Your task to perform on an android device: check out phone information Image 0: 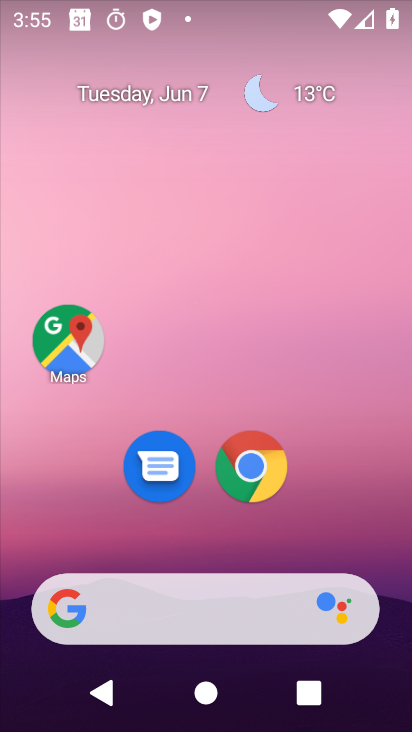
Step 0: drag from (399, 565) to (309, 125)
Your task to perform on an android device: check out phone information Image 1: 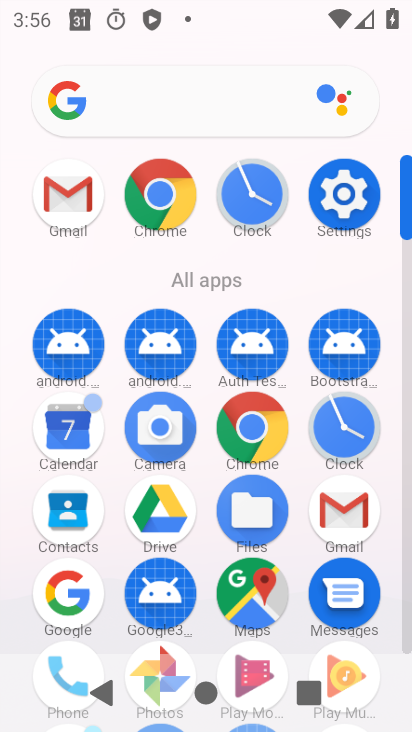
Step 1: click (362, 205)
Your task to perform on an android device: check out phone information Image 2: 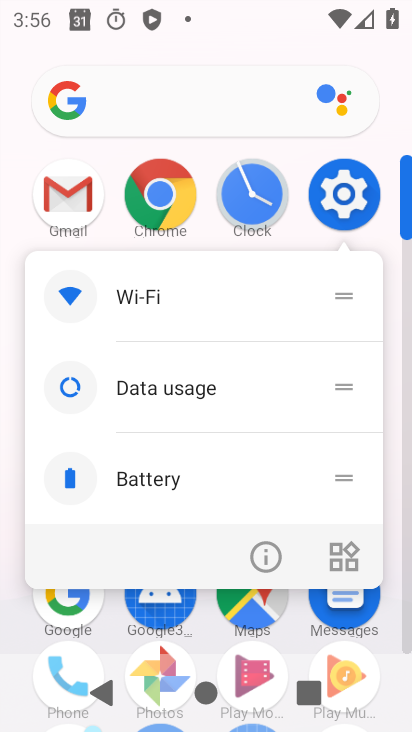
Step 2: click (362, 205)
Your task to perform on an android device: check out phone information Image 3: 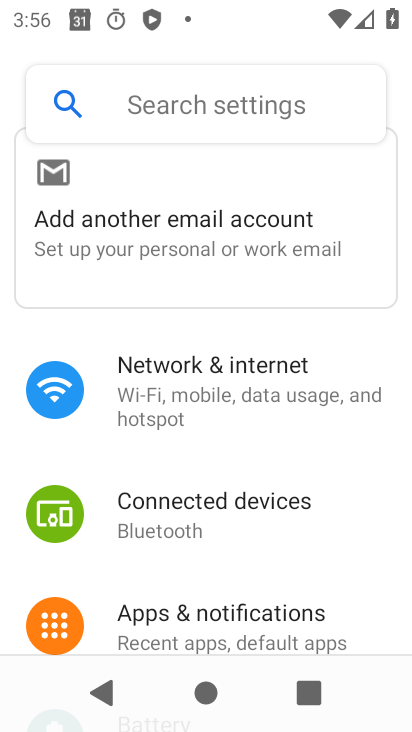
Step 3: drag from (385, 630) to (278, 42)
Your task to perform on an android device: check out phone information Image 4: 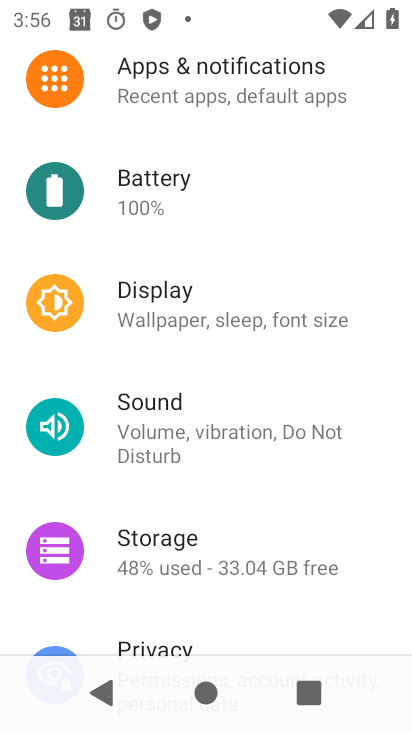
Step 4: drag from (369, 517) to (315, 10)
Your task to perform on an android device: check out phone information Image 5: 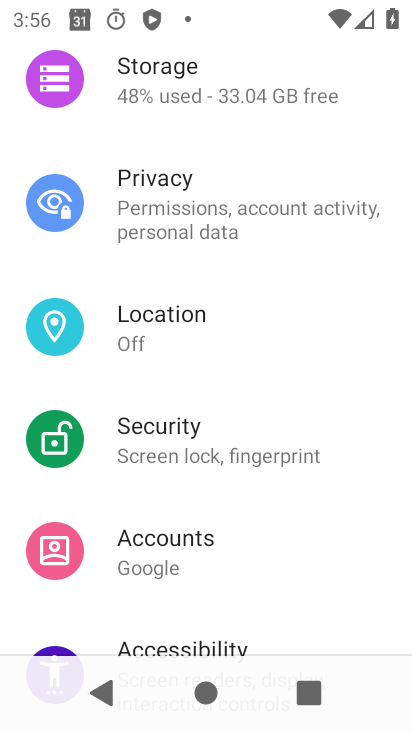
Step 5: drag from (320, 576) to (256, 21)
Your task to perform on an android device: check out phone information Image 6: 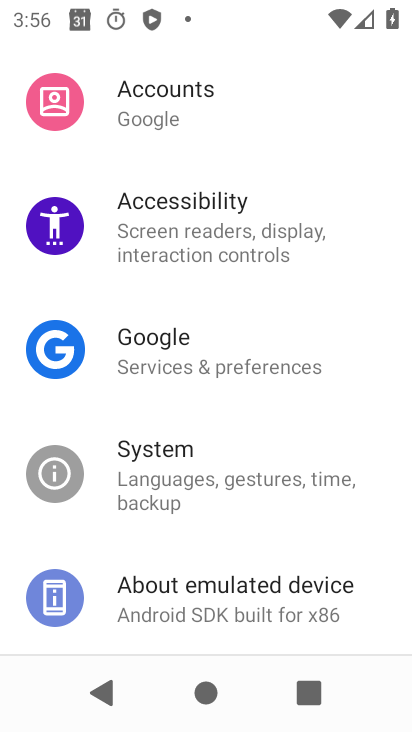
Step 6: click (303, 609)
Your task to perform on an android device: check out phone information Image 7: 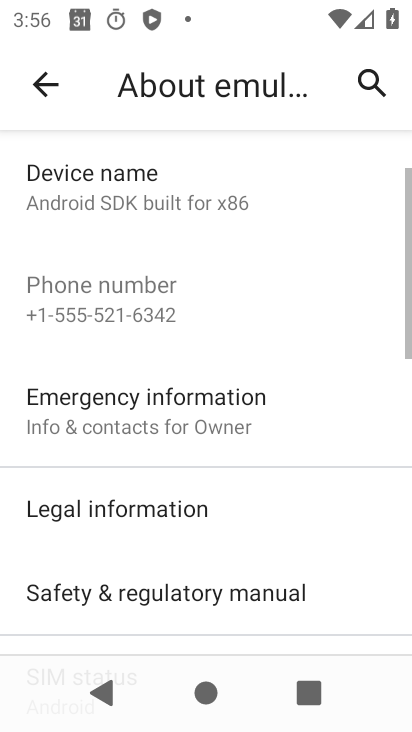
Step 7: task complete